Your task to perform on an android device: Open Google Image 0: 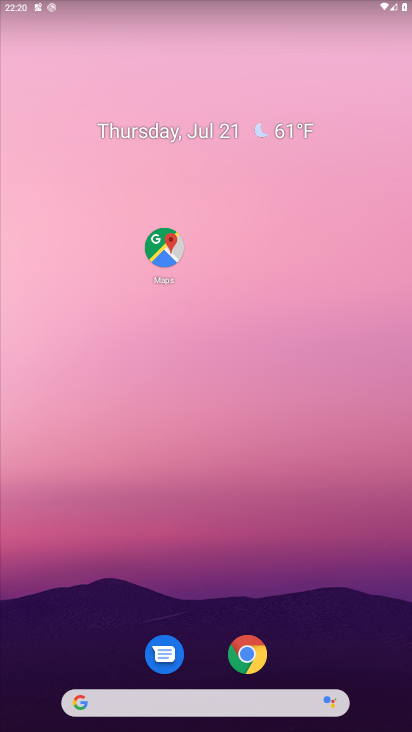
Step 0: click (97, 702)
Your task to perform on an android device: Open Google Image 1: 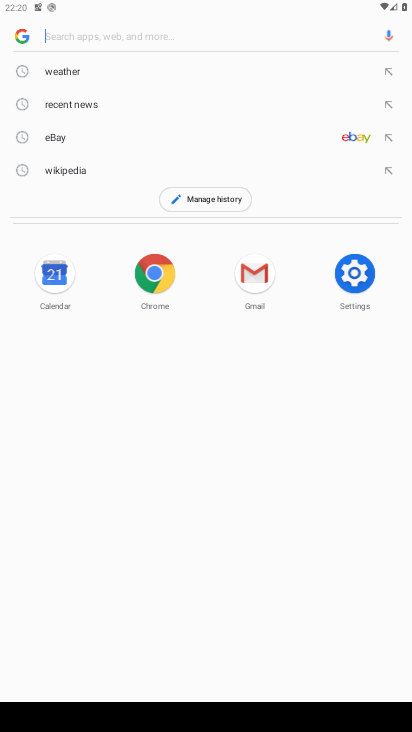
Step 1: task complete